Your task to perform on an android device: Open Youtube and go to "Your channel" Image 0: 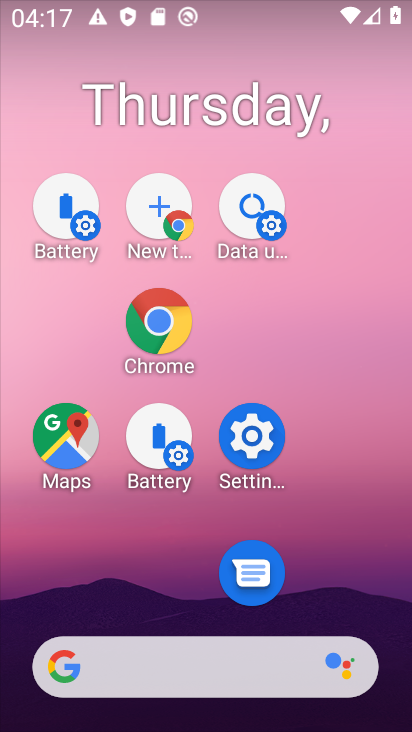
Step 0: drag from (205, 486) to (160, 262)
Your task to perform on an android device: Open Youtube and go to "Your channel" Image 1: 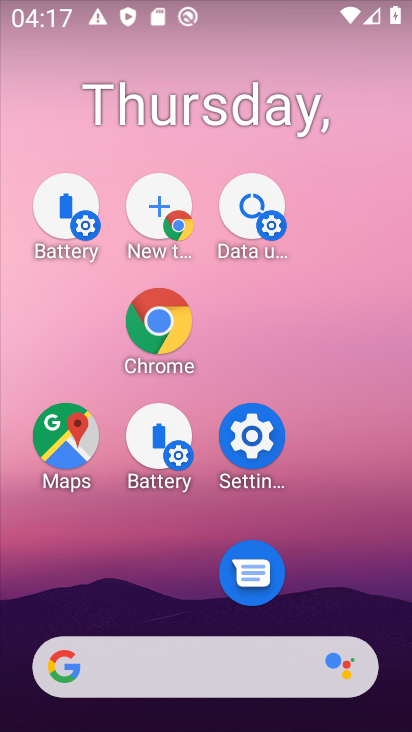
Step 1: drag from (306, 673) to (286, 259)
Your task to perform on an android device: Open Youtube and go to "Your channel" Image 2: 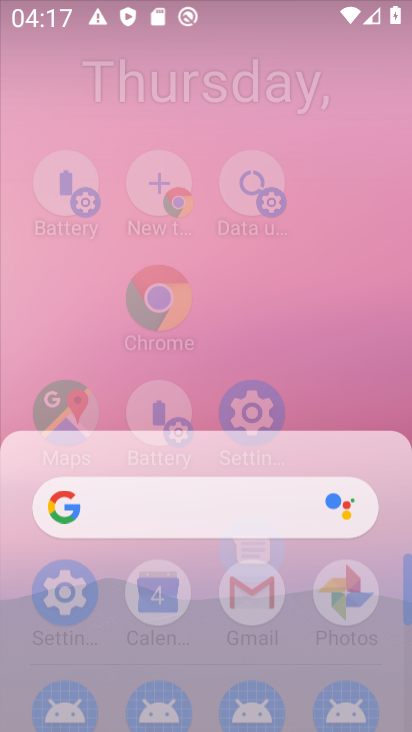
Step 2: drag from (280, 600) to (261, 269)
Your task to perform on an android device: Open Youtube and go to "Your channel" Image 3: 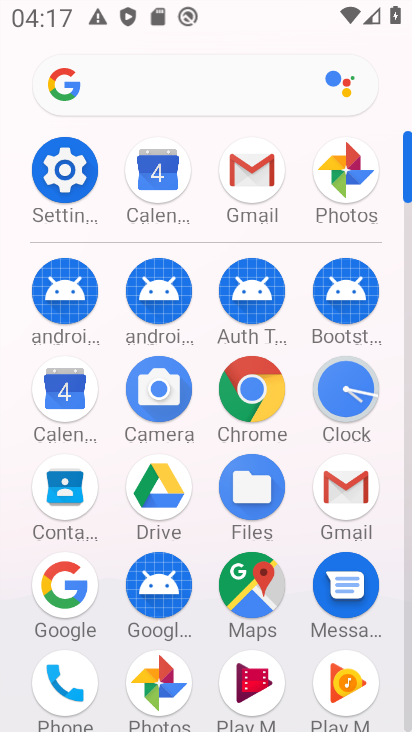
Step 3: drag from (279, 534) to (298, 211)
Your task to perform on an android device: Open Youtube and go to "Your channel" Image 4: 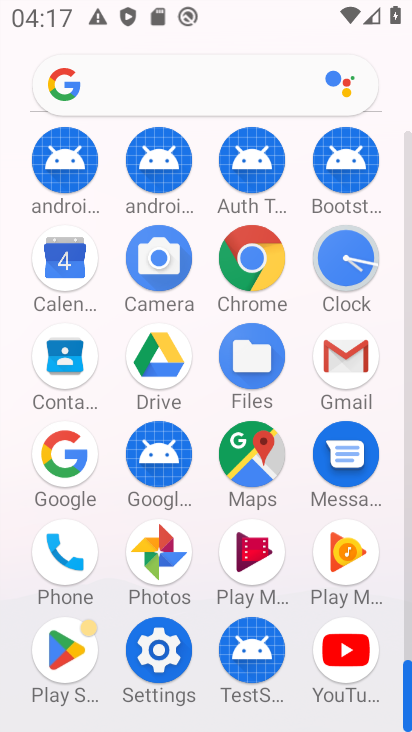
Step 4: drag from (314, 514) to (320, 202)
Your task to perform on an android device: Open Youtube and go to "Your channel" Image 5: 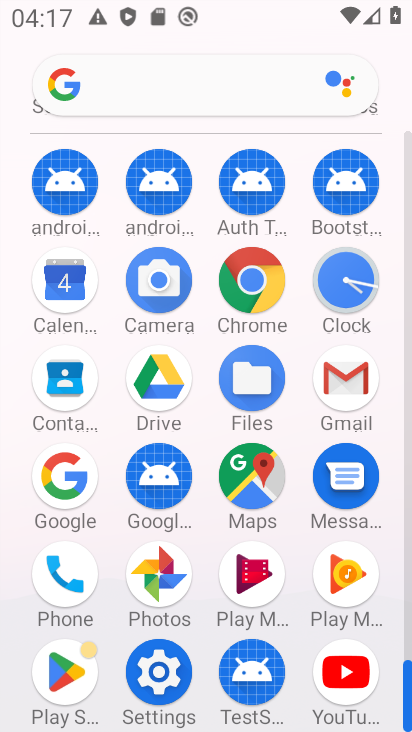
Step 5: click (341, 690)
Your task to perform on an android device: Open Youtube and go to "Your channel" Image 6: 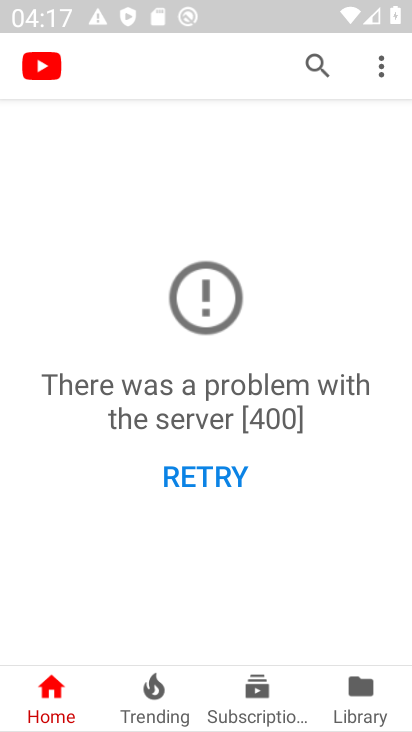
Step 6: click (357, 708)
Your task to perform on an android device: Open Youtube and go to "Your channel" Image 7: 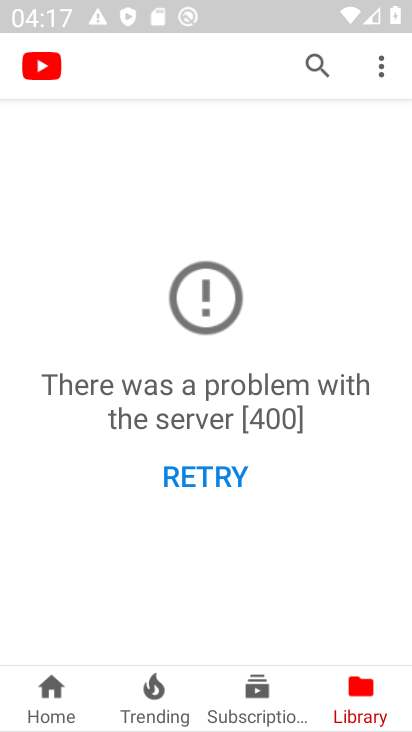
Step 7: task complete